Your task to perform on an android device: Go to Android settings Image 0: 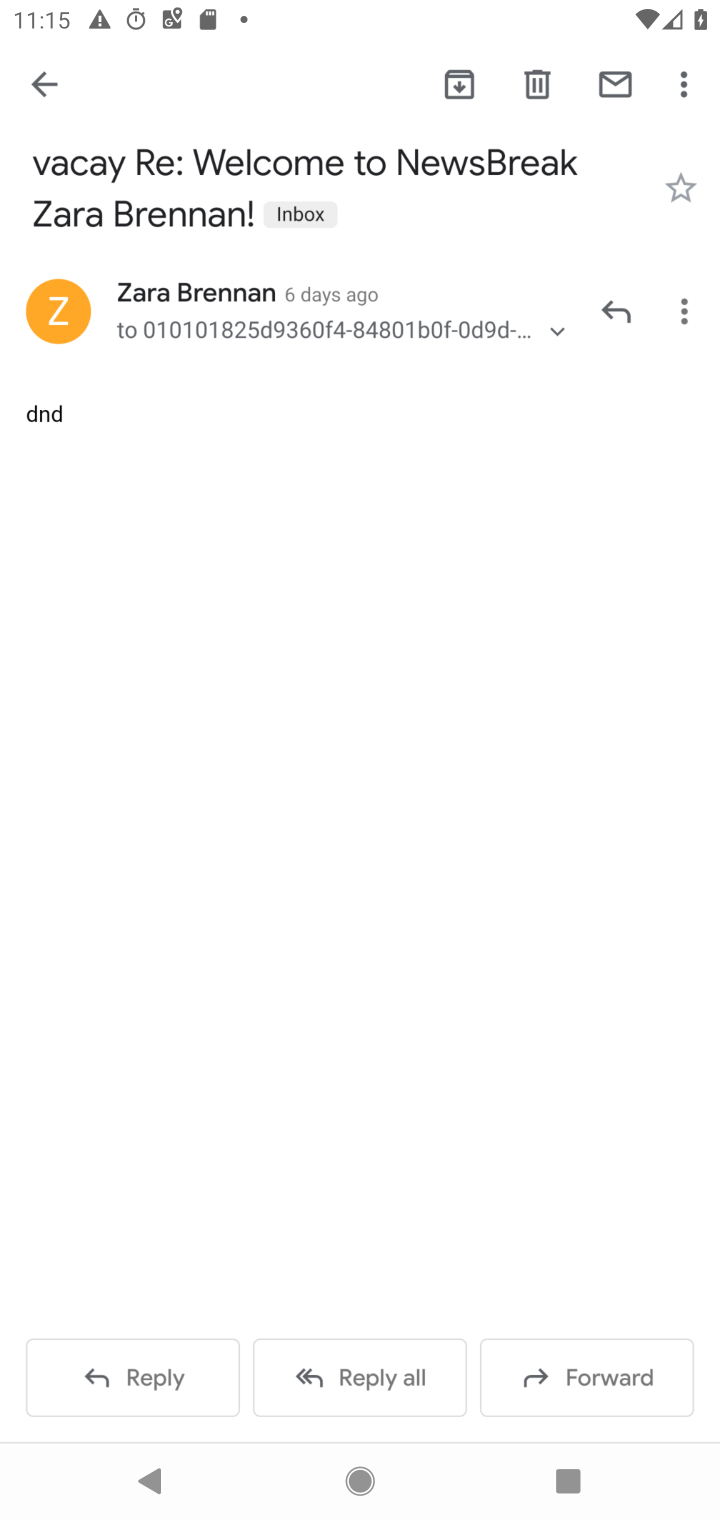
Step 0: press home button
Your task to perform on an android device: Go to Android settings Image 1: 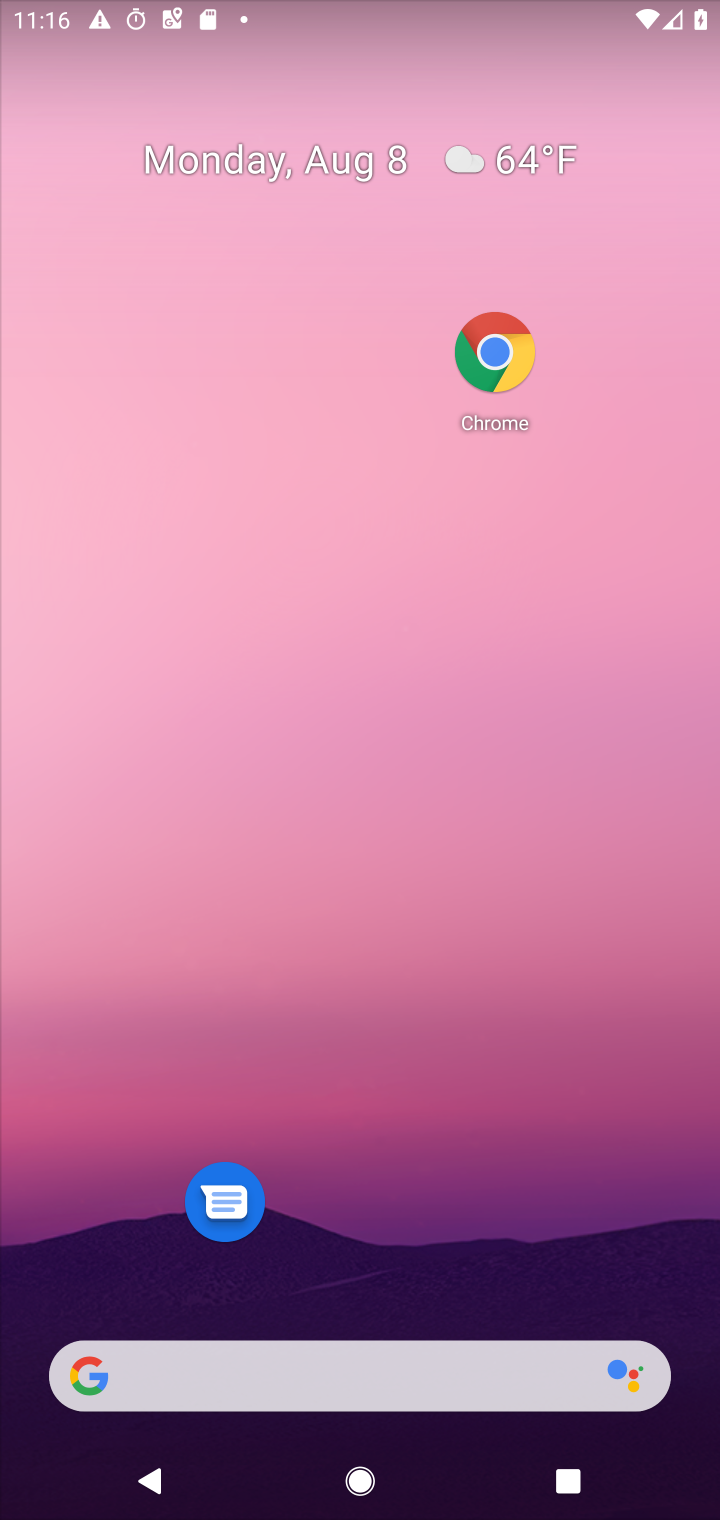
Step 1: press home button
Your task to perform on an android device: Go to Android settings Image 2: 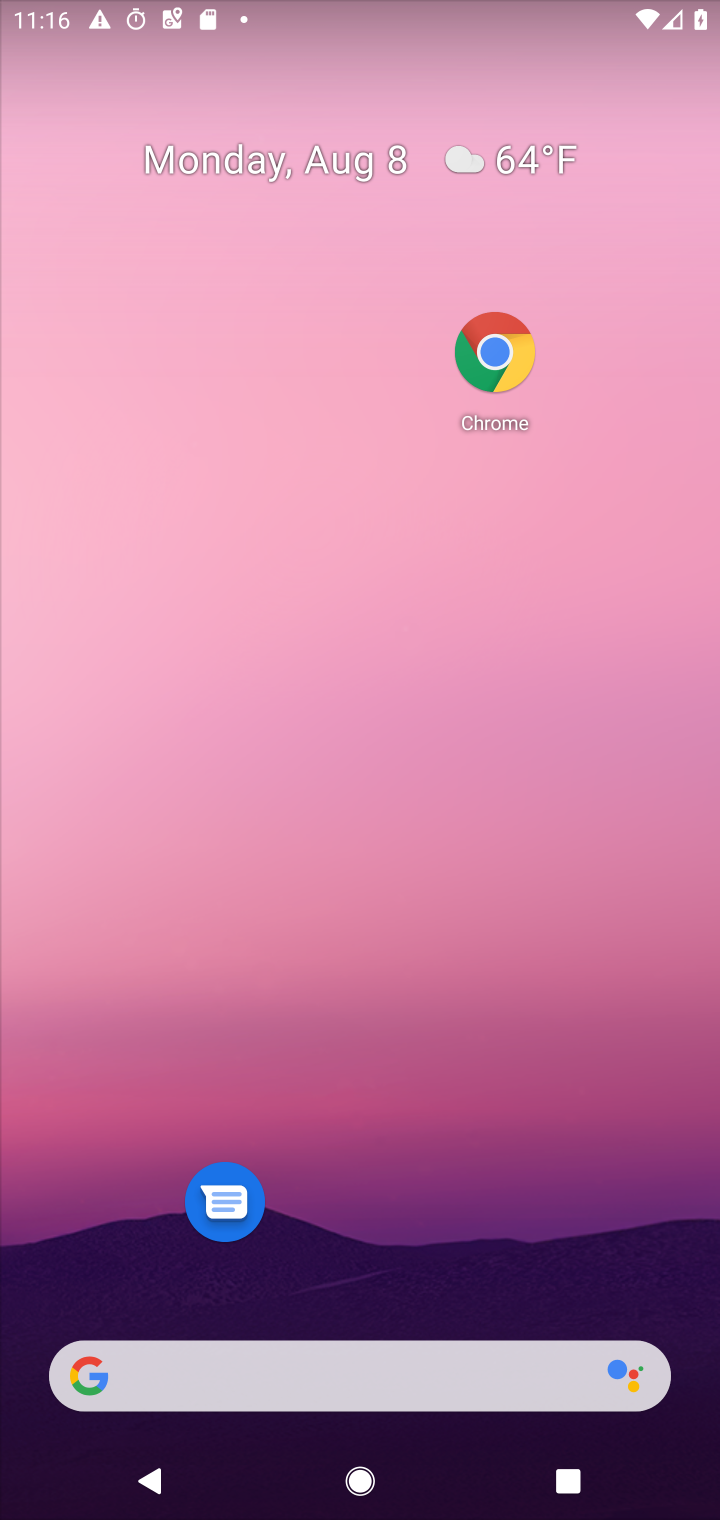
Step 2: drag from (362, 1226) to (364, 188)
Your task to perform on an android device: Go to Android settings Image 3: 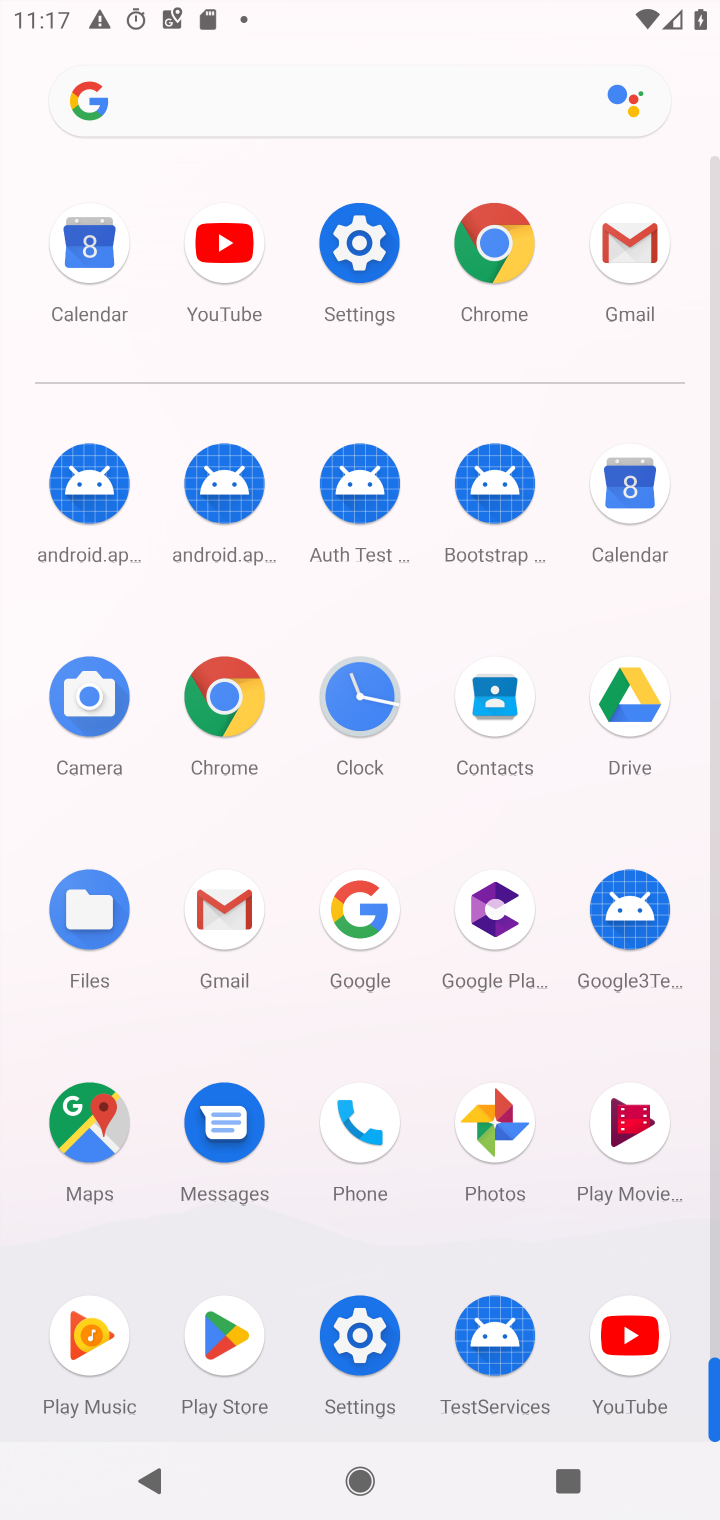
Step 3: click (378, 249)
Your task to perform on an android device: Go to Android settings Image 4: 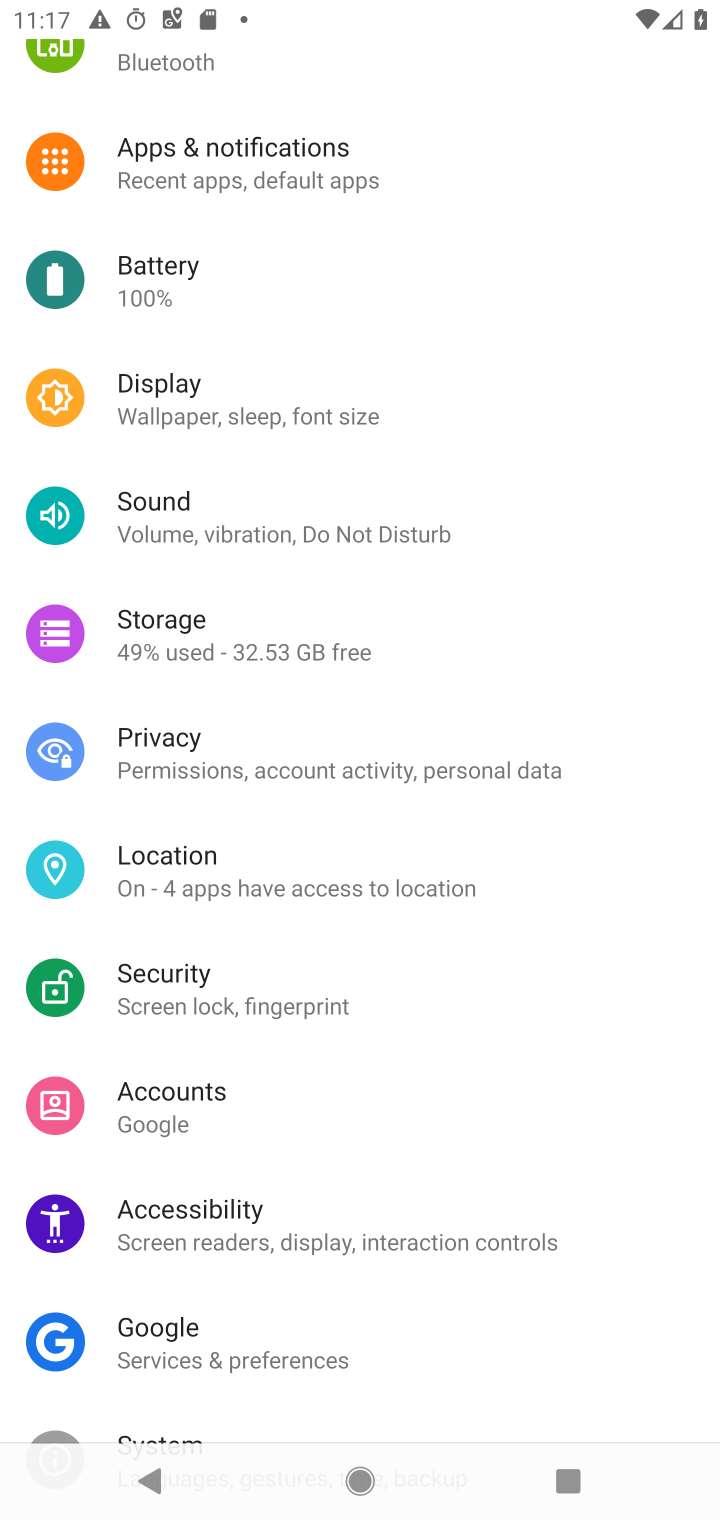
Step 4: drag from (271, 953) to (285, 415)
Your task to perform on an android device: Go to Android settings Image 5: 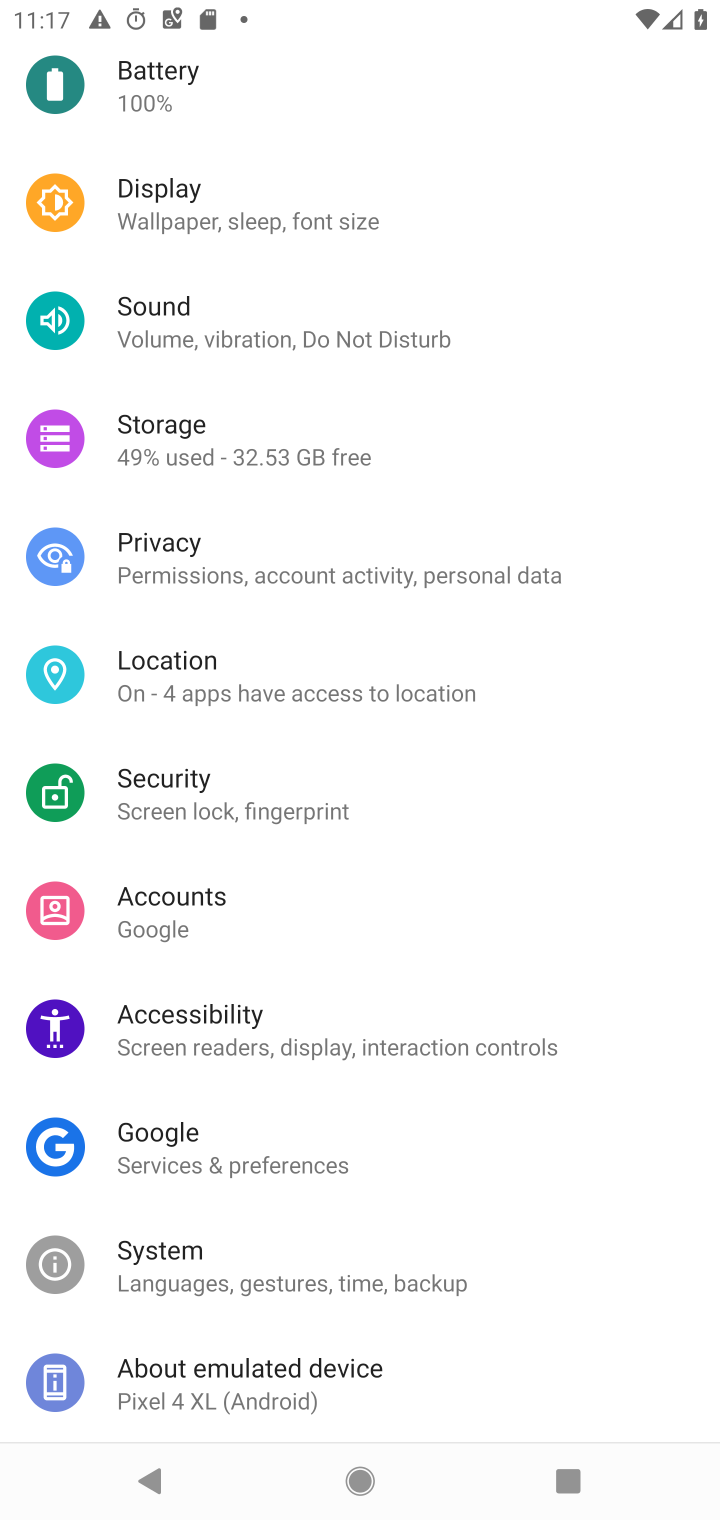
Step 5: click (196, 1373)
Your task to perform on an android device: Go to Android settings Image 6: 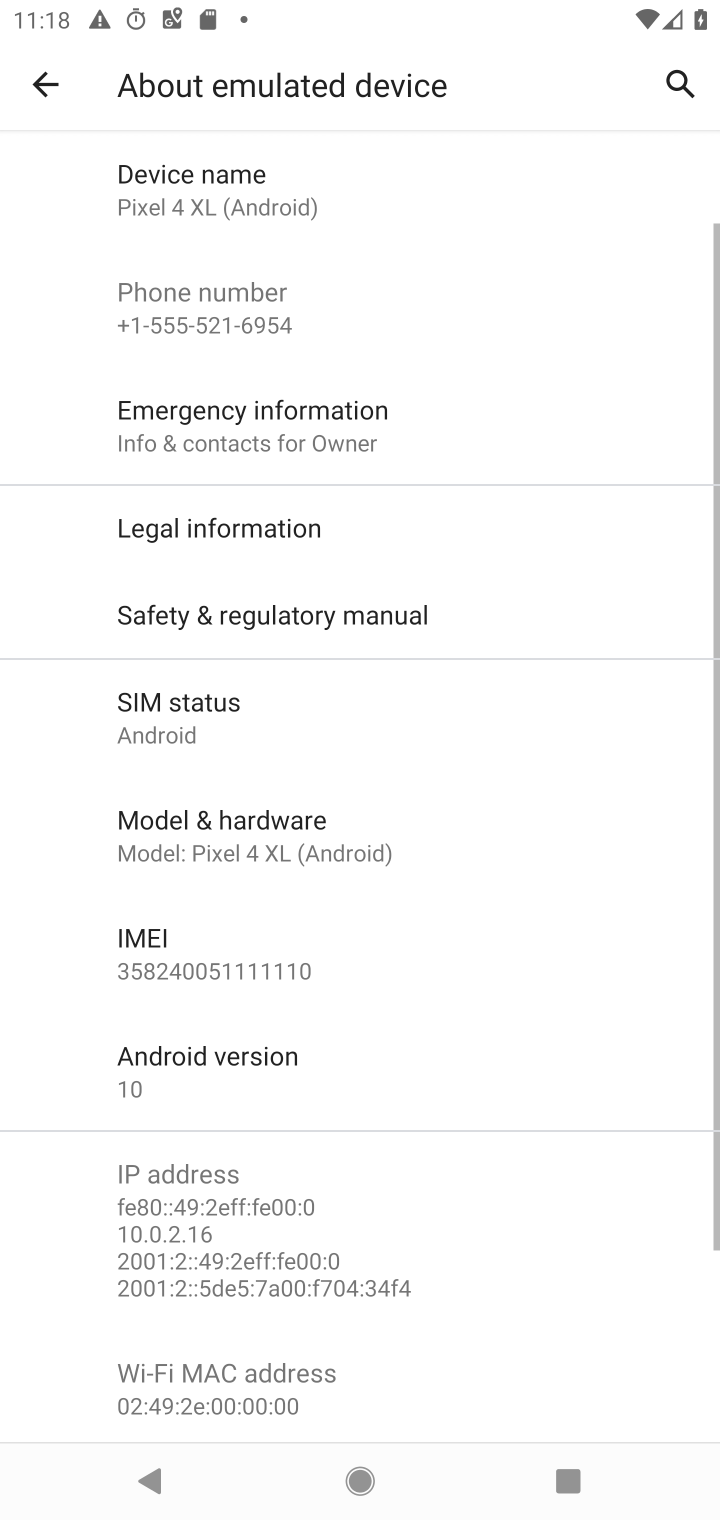
Step 6: task complete